Your task to perform on an android device: open app "WhatsApp Messenger" Image 0: 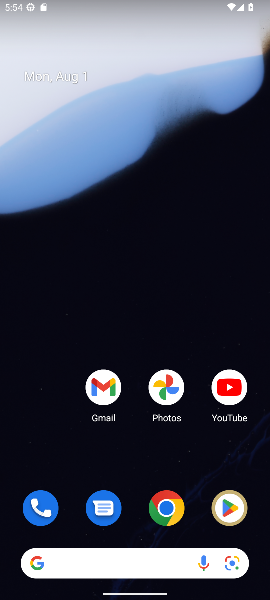
Step 0: drag from (140, 530) to (92, 590)
Your task to perform on an android device: open app "WhatsApp Messenger" Image 1: 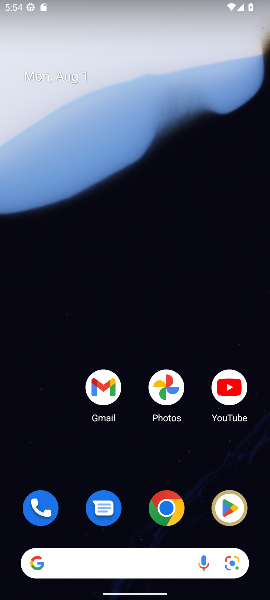
Step 1: drag from (126, 538) to (82, 70)
Your task to perform on an android device: open app "WhatsApp Messenger" Image 2: 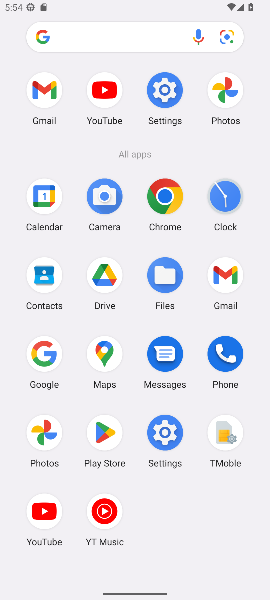
Step 2: click (110, 436)
Your task to perform on an android device: open app "WhatsApp Messenger" Image 3: 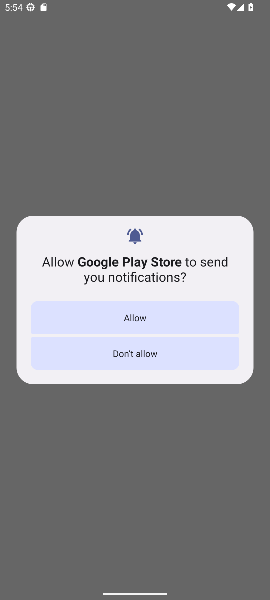
Step 3: click (130, 321)
Your task to perform on an android device: open app "WhatsApp Messenger" Image 4: 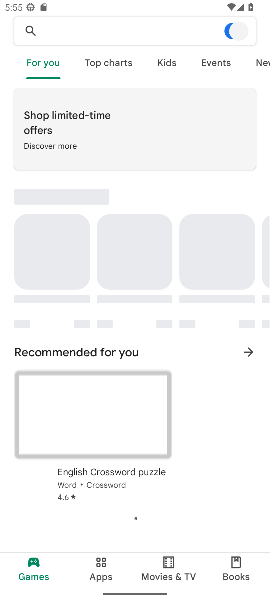
Step 4: click (103, 36)
Your task to perform on an android device: open app "WhatsApp Messenger" Image 5: 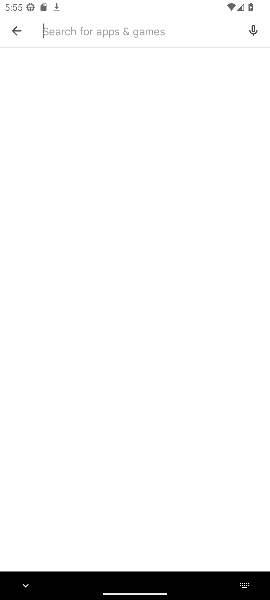
Step 5: type "WhatsApp Messenge"
Your task to perform on an android device: open app "WhatsApp Messenger" Image 6: 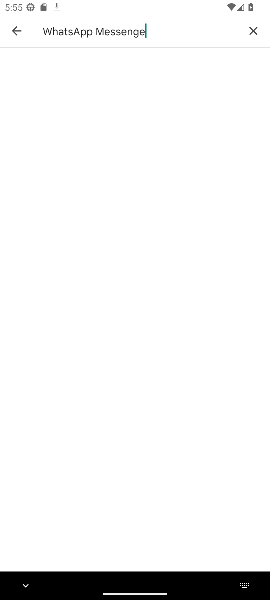
Step 6: type ""
Your task to perform on an android device: open app "WhatsApp Messenger" Image 7: 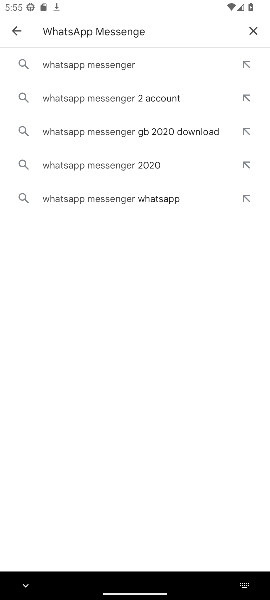
Step 7: click (56, 66)
Your task to perform on an android device: open app "WhatsApp Messenger" Image 8: 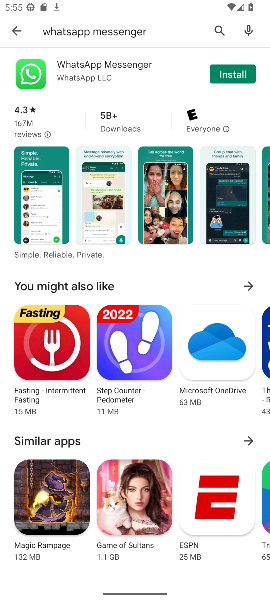
Step 8: task complete